Your task to perform on an android device: turn off notifications settings in the gmail app Image 0: 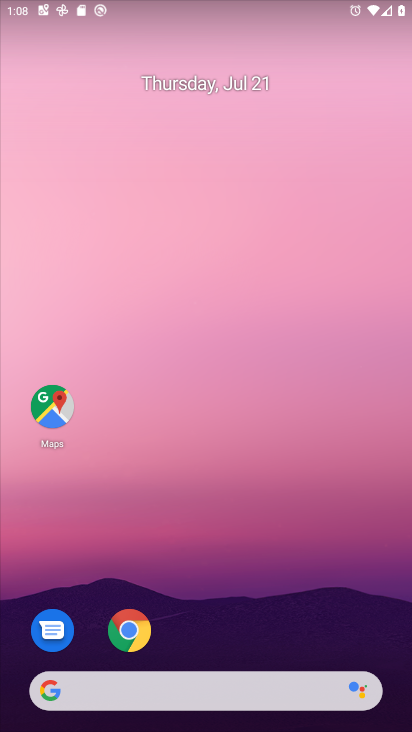
Step 0: drag from (199, 651) to (275, 153)
Your task to perform on an android device: turn off notifications settings in the gmail app Image 1: 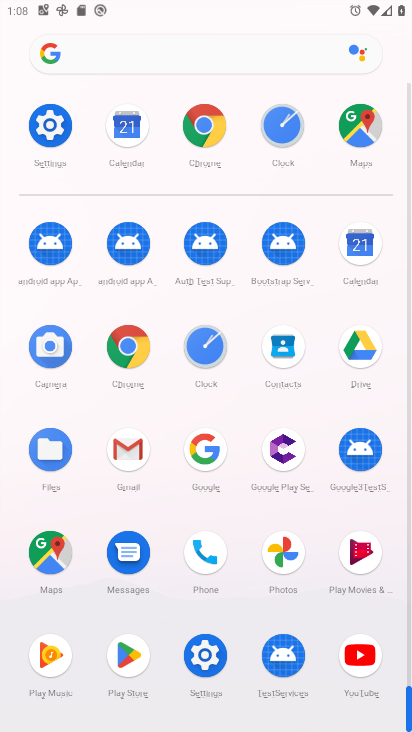
Step 1: click (136, 439)
Your task to perform on an android device: turn off notifications settings in the gmail app Image 2: 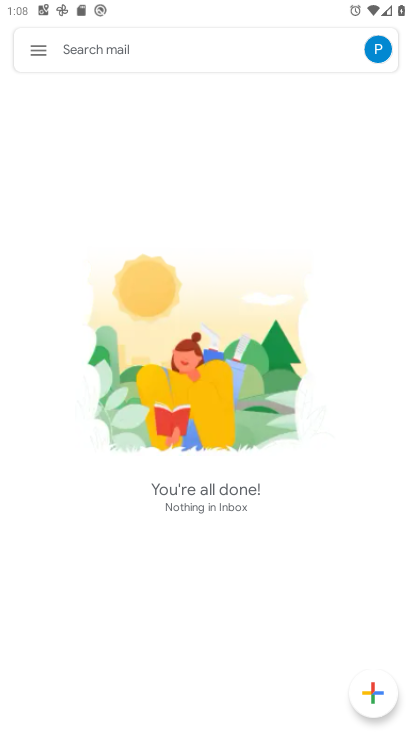
Step 2: drag from (227, 560) to (210, 223)
Your task to perform on an android device: turn off notifications settings in the gmail app Image 3: 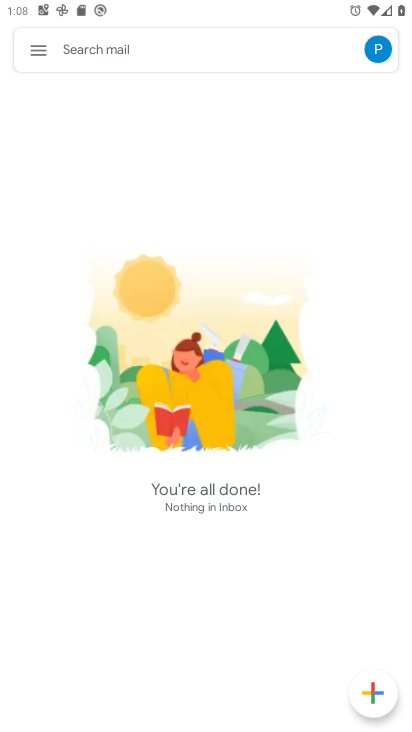
Step 3: click (53, 43)
Your task to perform on an android device: turn off notifications settings in the gmail app Image 4: 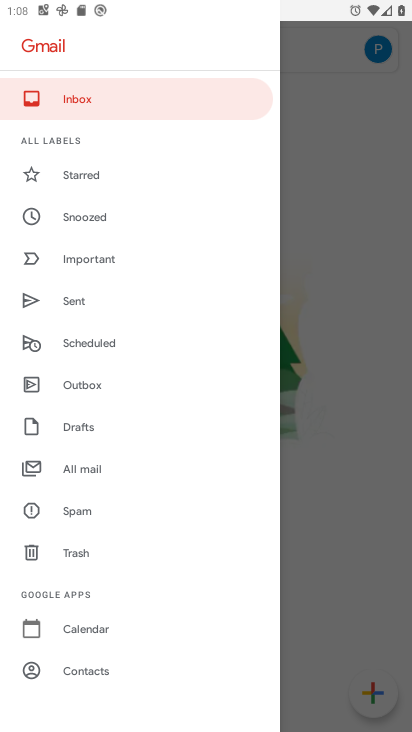
Step 4: click (88, 628)
Your task to perform on an android device: turn off notifications settings in the gmail app Image 5: 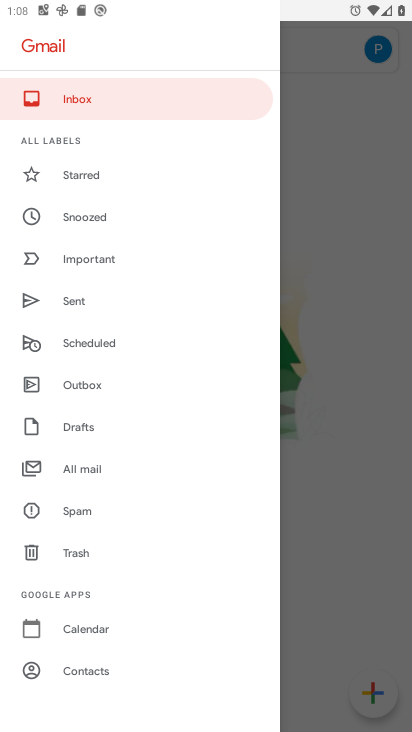
Step 5: drag from (88, 628) to (262, 72)
Your task to perform on an android device: turn off notifications settings in the gmail app Image 6: 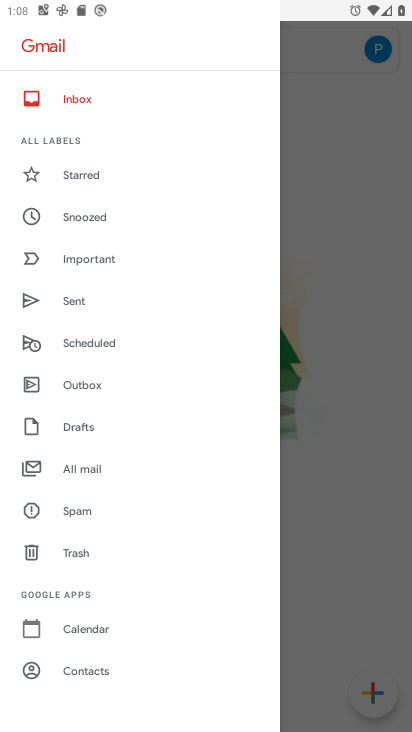
Step 6: drag from (141, 427) to (231, 31)
Your task to perform on an android device: turn off notifications settings in the gmail app Image 7: 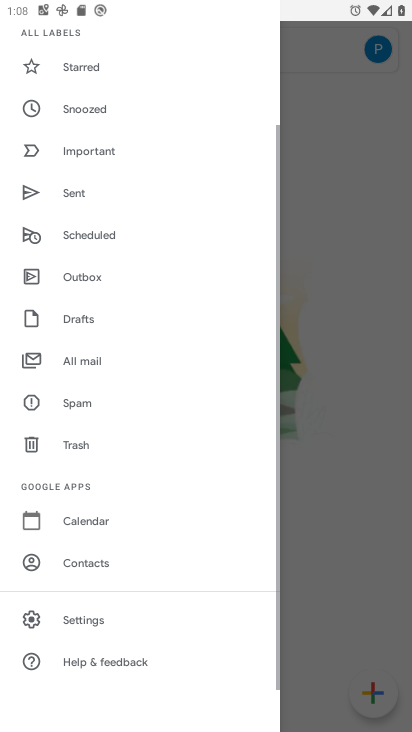
Step 7: click (70, 623)
Your task to perform on an android device: turn off notifications settings in the gmail app Image 8: 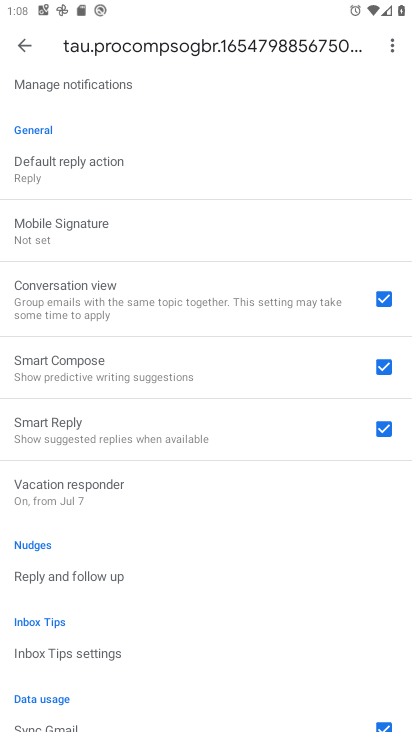
Step 8: click (137, 86)
Your task to perform on an android device: turn off notifications settings in the gmail app Image 9: 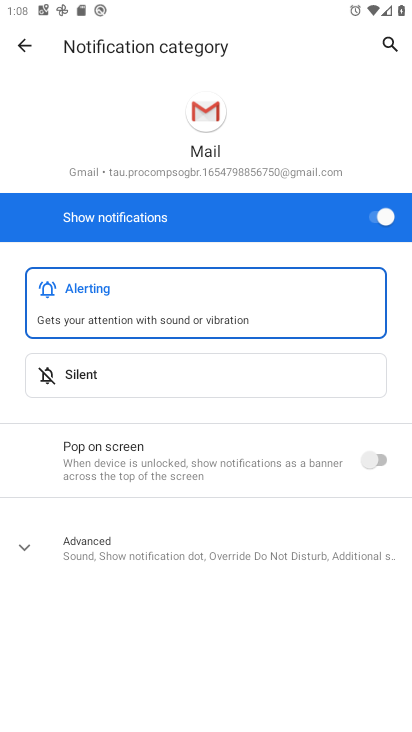
Step 9: click (382, 221)
Your task to perform on an android device: turn off notifications settings in the gmail app Image 10: 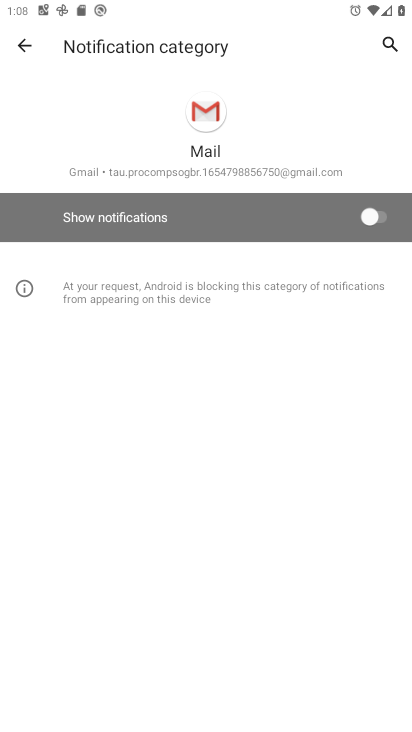
Step 10: task complete